Your task to perform on an android device: Go to Wikipedia Image 0: 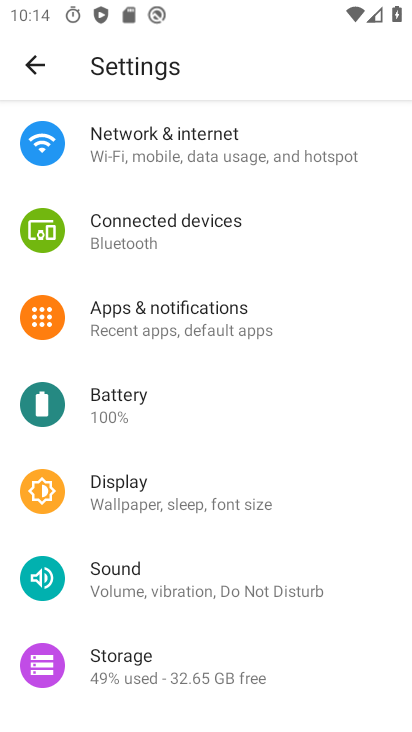
Step 0: press home button
Your task to perform on an android device: Go to Wikipedia Image 1: 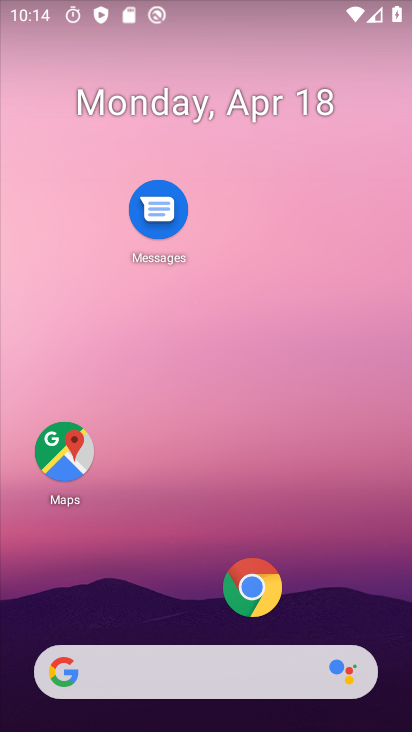
Step 1: click (271, 576)
Your task to perform on an android device: Go to Wikipedia Image 2: 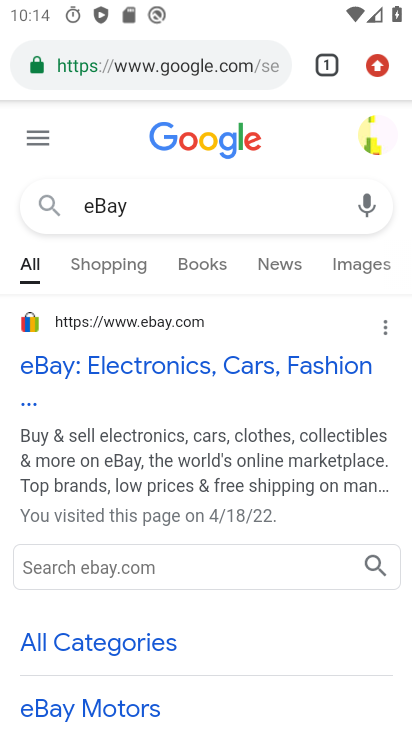
Step 2: click (325, 68)
Your task to perform on an android device: Go to Wikipedia Image 3: 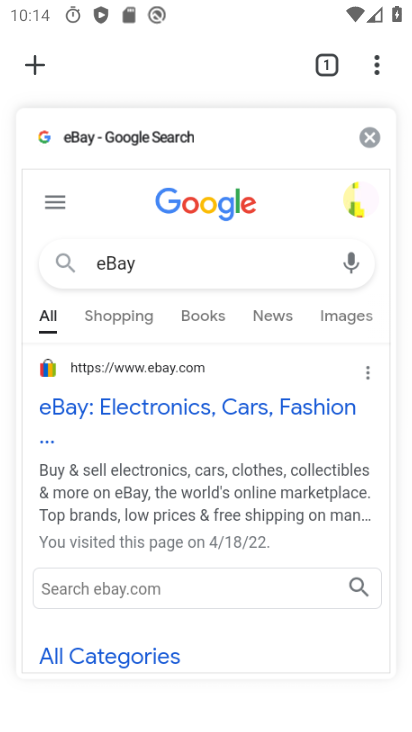
Step 3: click (33, 60)
Your task to perform on an android device: Go to Wikipedia Image 4: 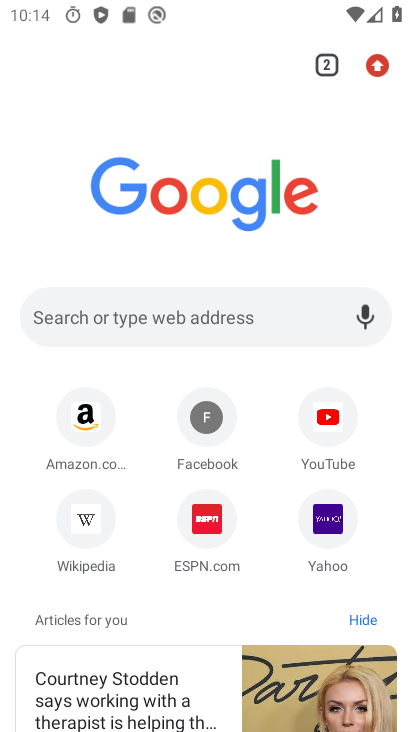
Step 4: click (88, 534)
Your task to perform on an android device: Go to Wikipedia Image 5: 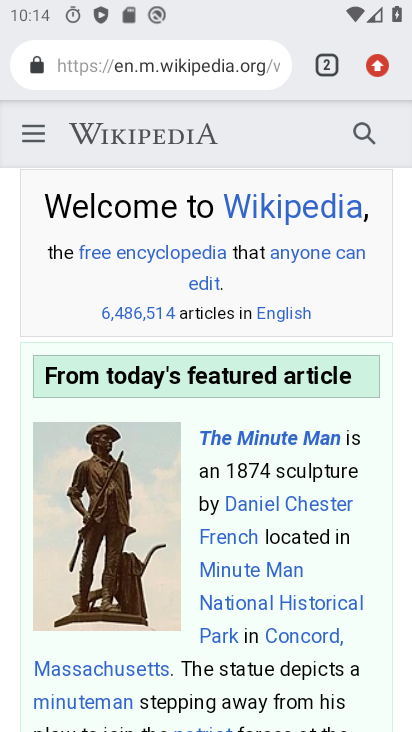
Step 5: task complete